Your task to perform on an android device: Go to Maps Image 0: 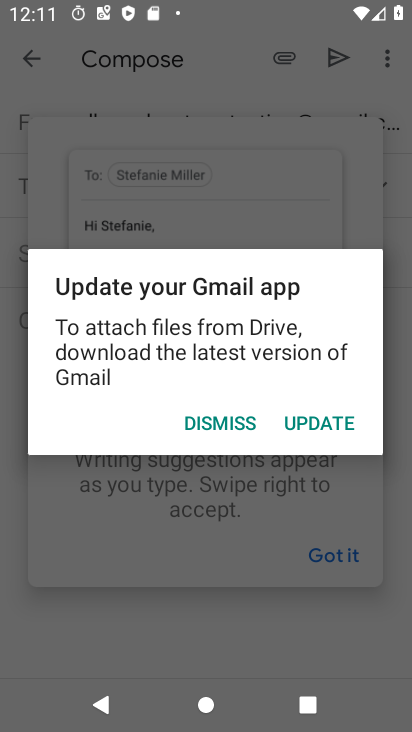
Step 0: press home button
Your task to perform on an android device: Go to Maps Image 1: 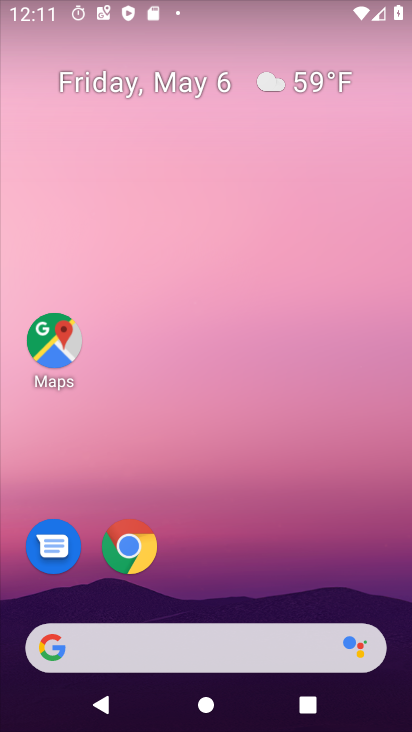
Step 1: drag from (248, 539) to (295, 76)
Your task to perform on an android device: Go to Maps Image 2: 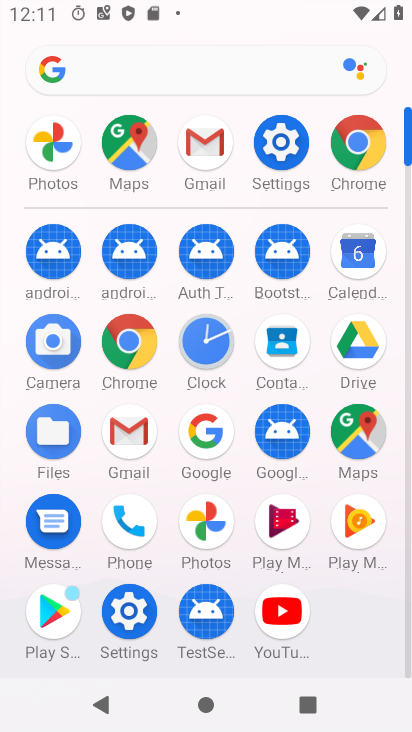
Step 2: click (133, 151)
Your task to perform on an android device: Go to Maps Image 3: 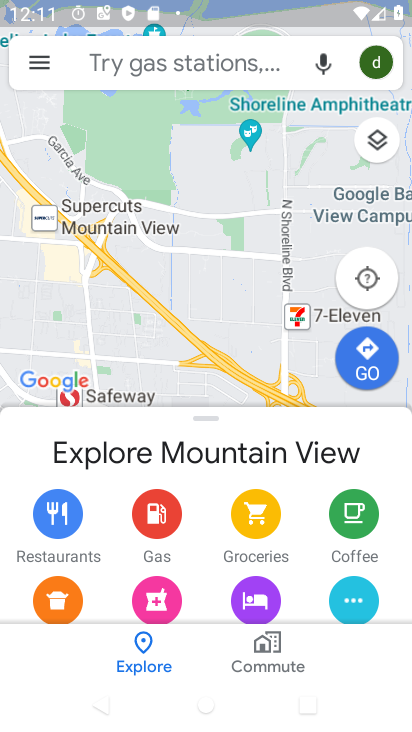
Step 3: task complete